Your task to perform on an android device: open a bookmark in the chrome app Image 0: 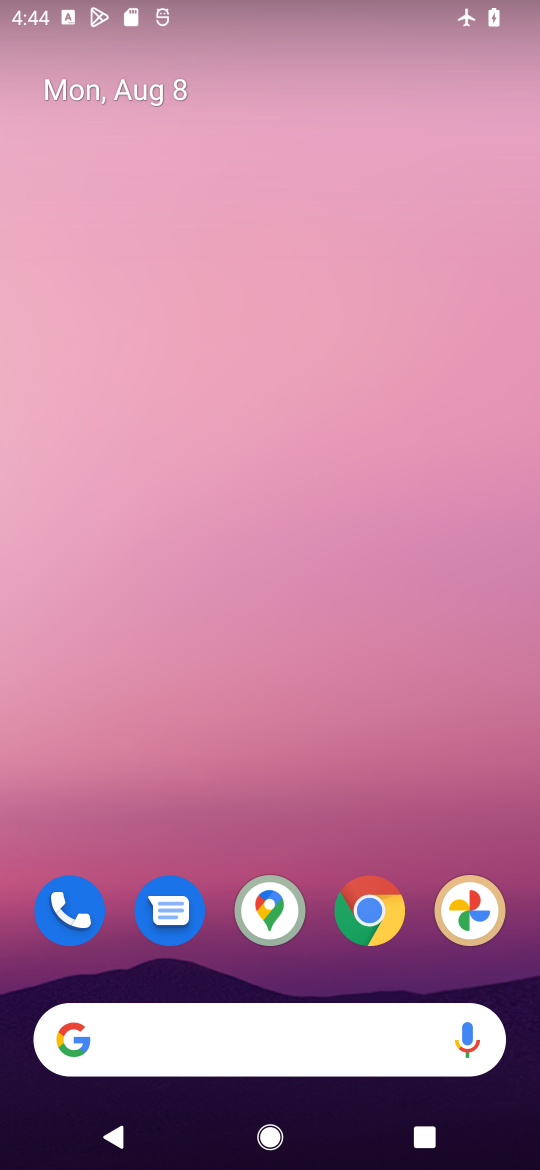
Step 0: click (378, 906)
Your task to perform on an android device: open a bookmark in the chrome app Image 1: 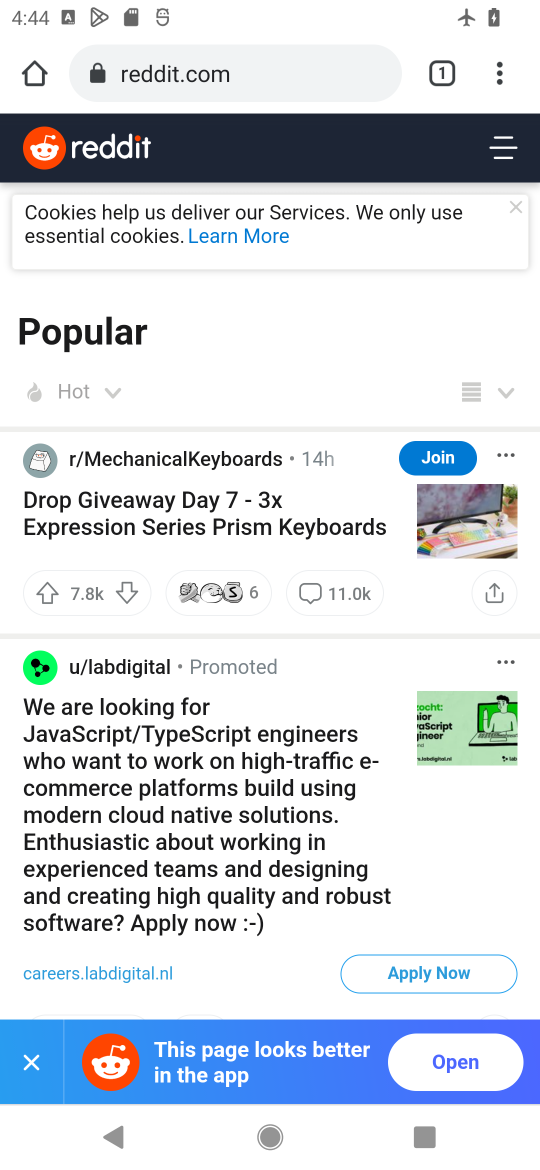
Step 1: click (497, 73)
Your task to perform on an android device: open a bookmark in the chrome app Image 2: 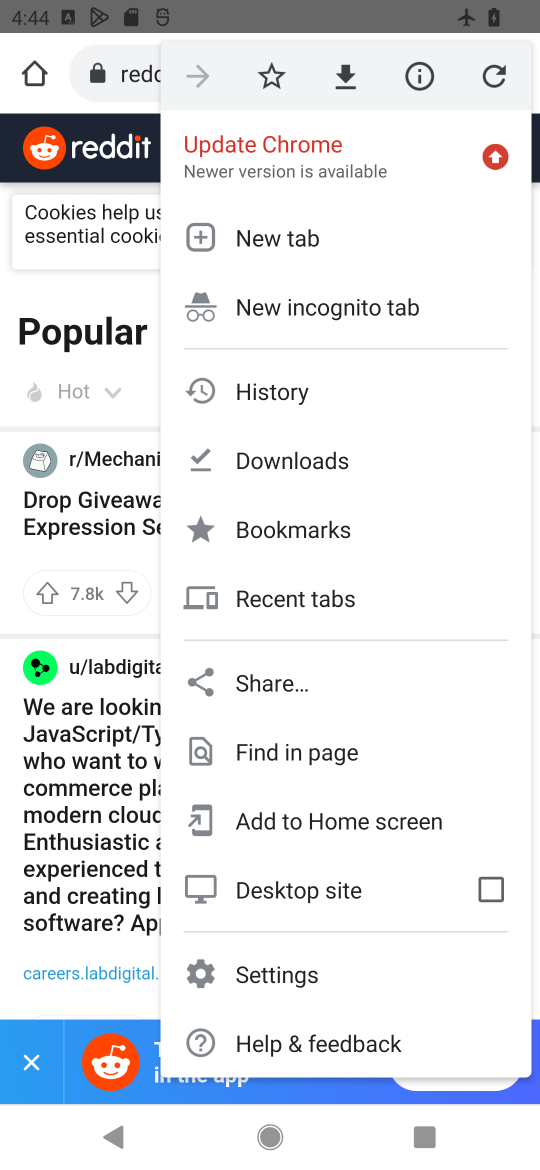
Step 2: click (257, 533)
Your task to perform on an android device: open a bookmark in the chrome app Image 3: 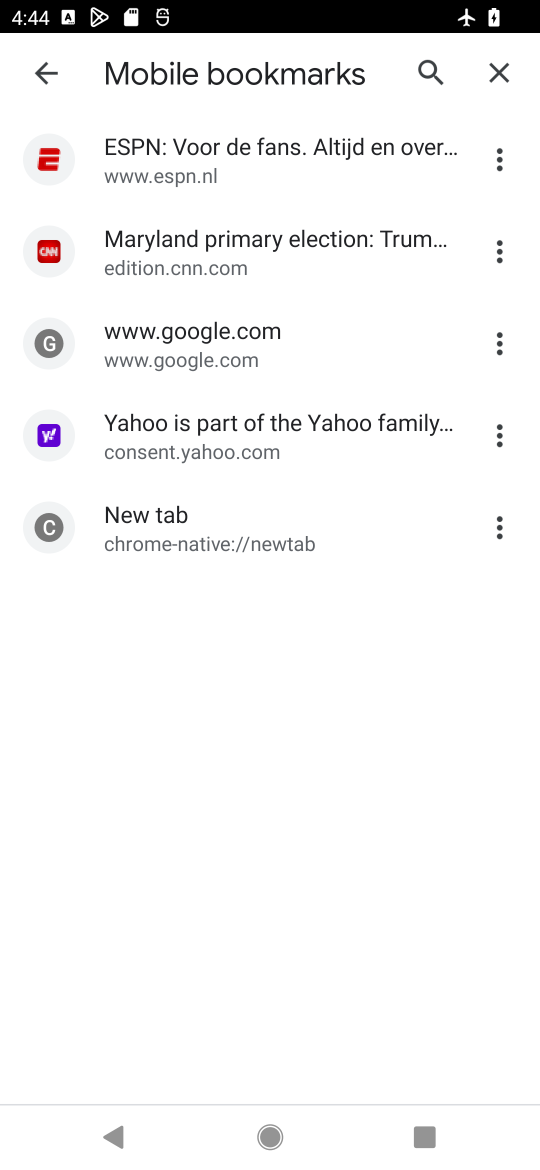
Step 3: task complete